Your task to perform on an android device: Open the Play Movies app and select the watchlist tab. Image 0: 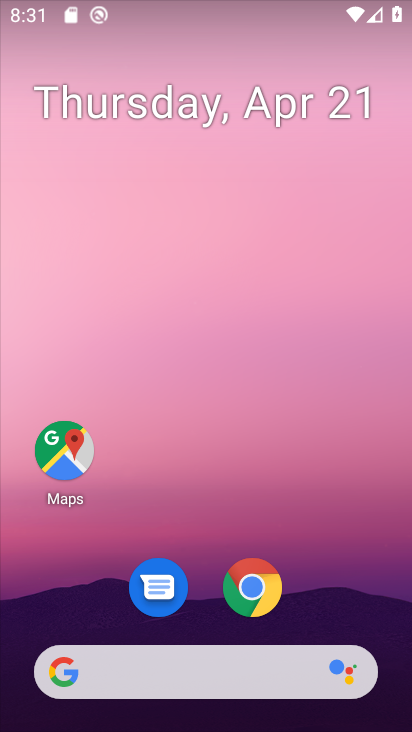
Step 0: drag from (379, 566) to (363, 311)
Your task to perform on an android device: Open the Play Movies app and select the watchlist tab. Image 1: 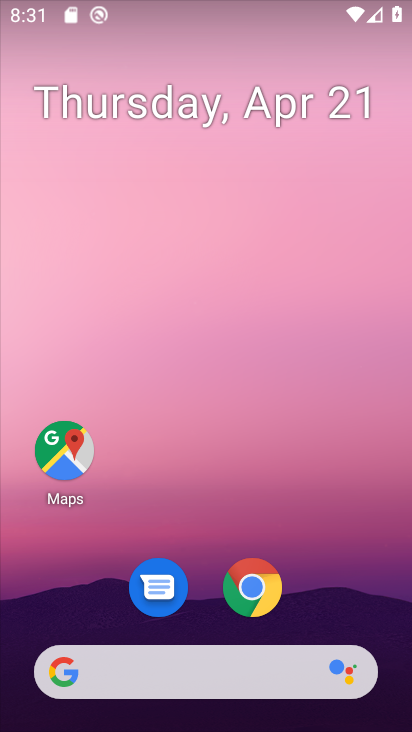
Step 1: drag from (388, 538) to (381, 197)
Your task to perform on an android device: Open the Play Movies app and select the watchlist tab. Image 2: 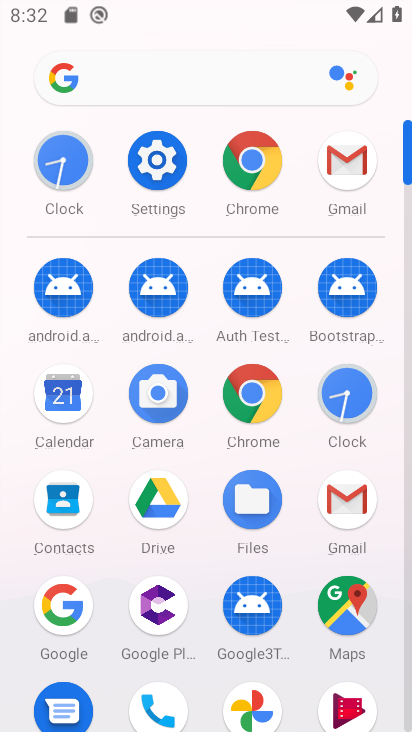
Step 2: click (325, 704)
Your task to perform on an android device: Open the Play Movies app and select the watchlist tab. Image 3: 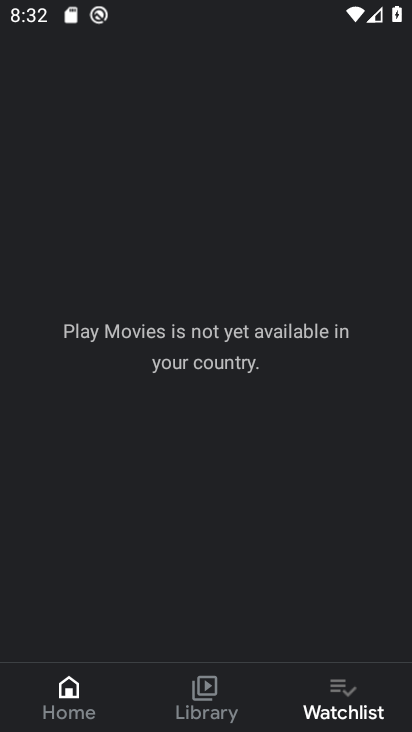
Step 3: click (325, 712)
Your task to perform on an android device: Open the Play Movies app and select the watchlist tab. Image 4: 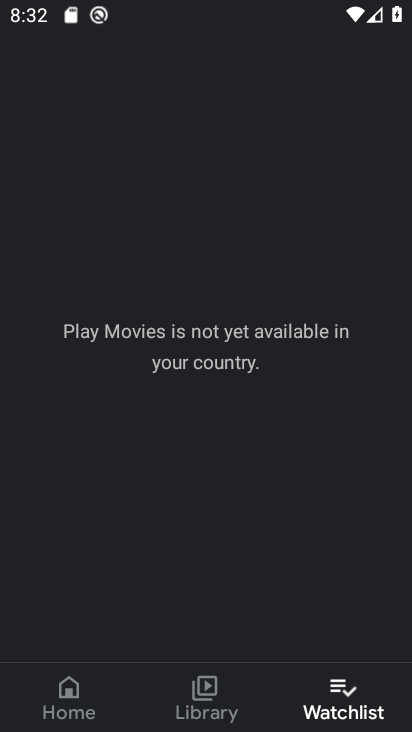
Step 4: task complete